Your task to perform on an android device: allow notifications from all sites in the chrome app Image 0: 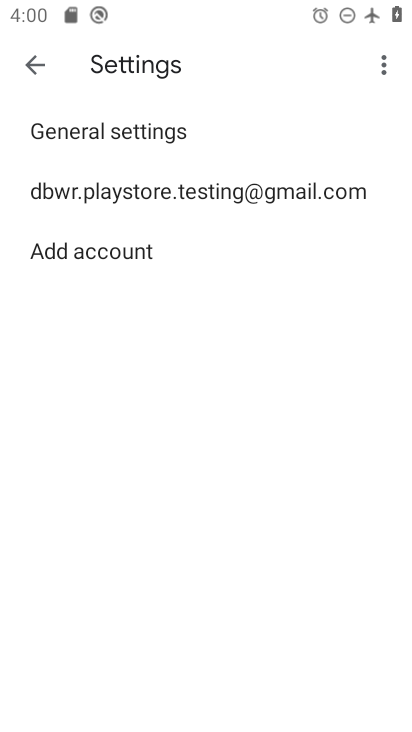
Step 0: press home button
Your task to perform on an android device: allow notifications from all sites in the chrome app Image 1: 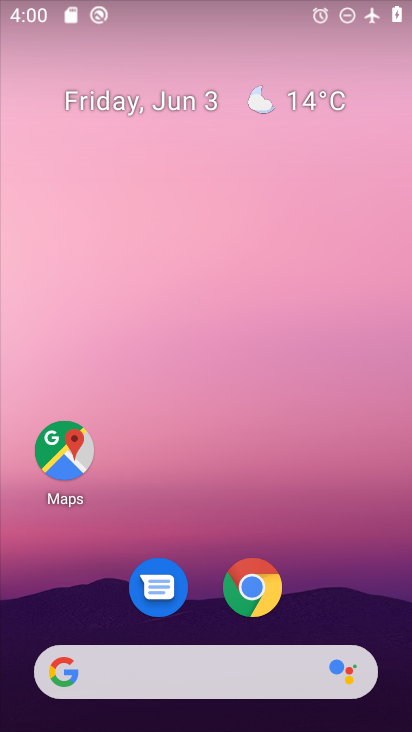
Step 1: click (257, 592)
Your task to perform on an android device: allow notifications from all sites in the chrome app Image 2: 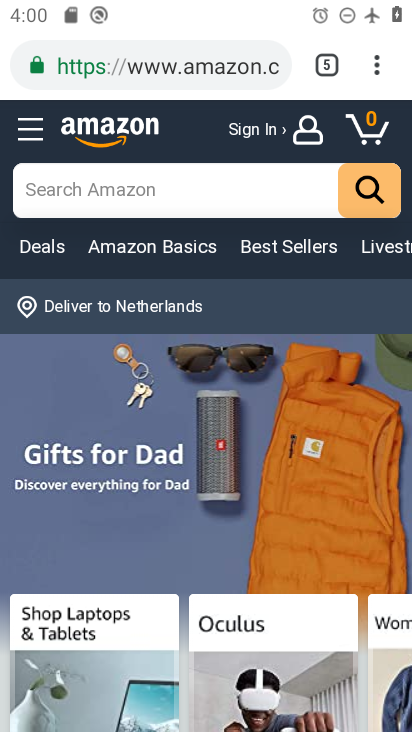
Step 2: click (375, 71)
Your task to perform on an android device: allow notifications from all sites in the chrome app Image 3: 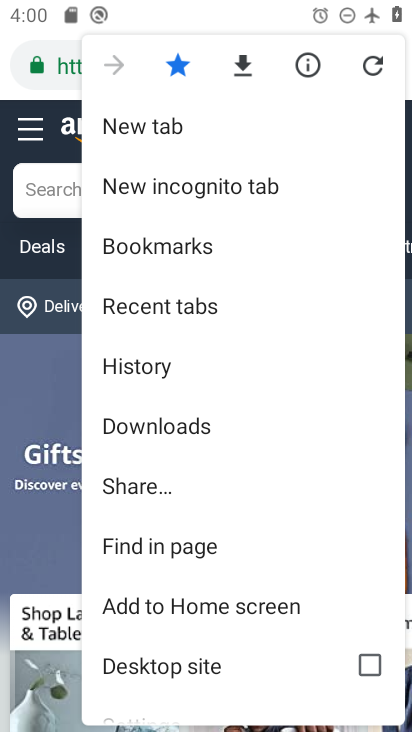
Step 3: drag from (230, 643) to (169, 187)
Your task to perform on an android device: allow notifications from all sites in the chrome app Image 4: 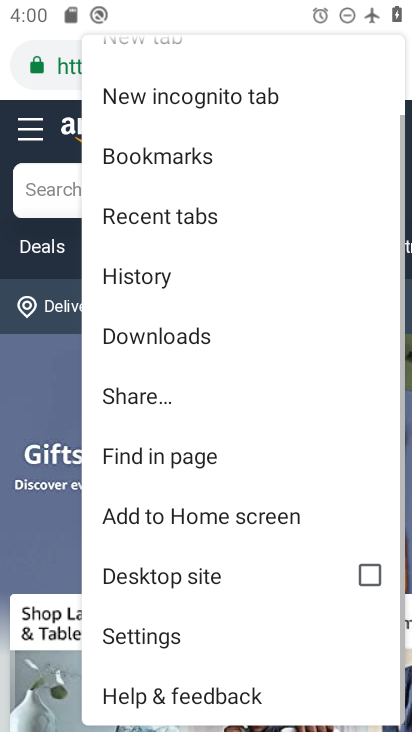
Step 4: click (150, 630)
Your task to perform on an android device: allow notifications from all sites in the chrome app Image 5: 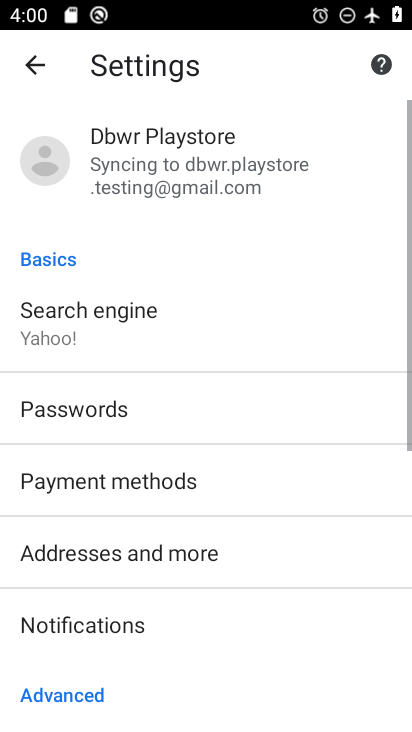
Step 5: drag from (161, 697) to (143, 301)
Your task to perform on an android device: allow notifications from all sites in the chrome app Image 6: 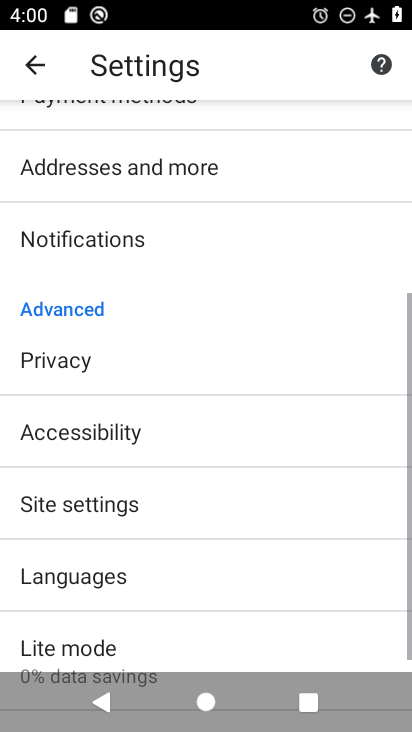
Step 6: click (54, 504)
Your task to perform on an android device: allow notifications from all sites in the chrome app Image 7: 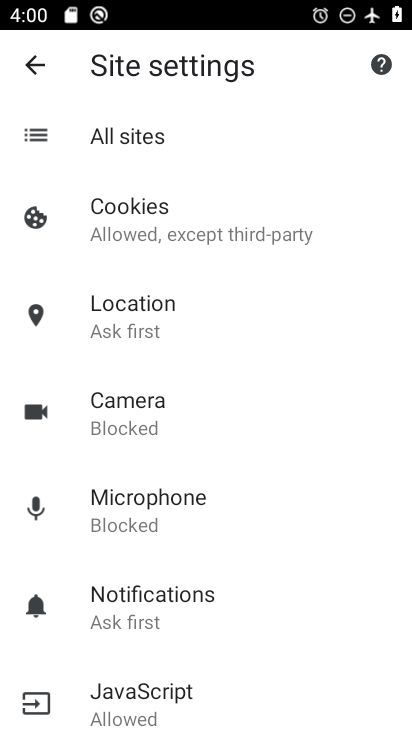
Step 7: click (155, 605)
Your task to perform on an android device: allow notifications from all sites in the chrome app Image 8: 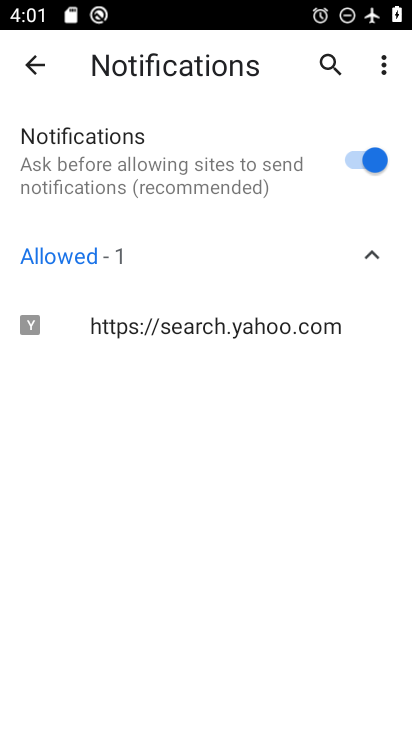
Step 8: task complete